Your task to perform on an android device: Open the Play Movies app and select the watchlist tab. Image 0: 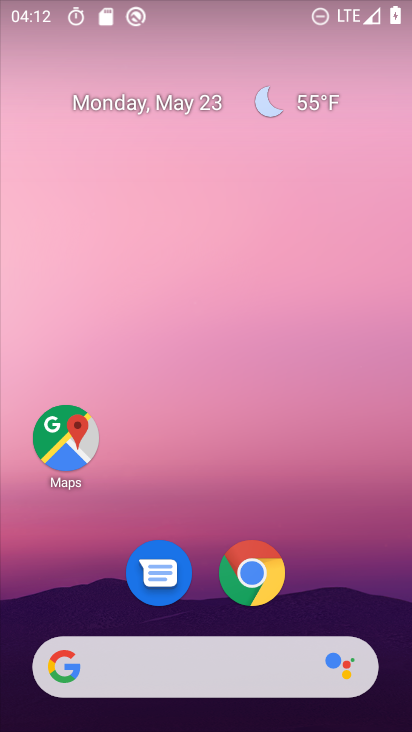
Step 0: drag from (320, 588) to (210, 45)
Your task to perform on an android device: Open the Play Movies app and select the watchlist tab. Image 1: 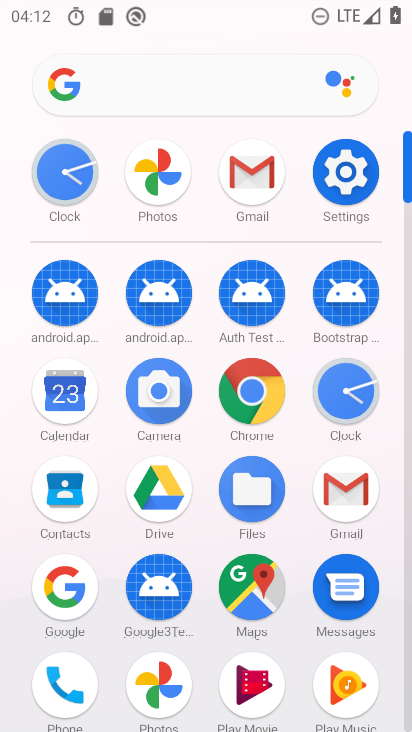
Step 1: click (254, 678)
Your task to perform on an android device: Open the Play Movies app and select the watchlist tab. Image 2: 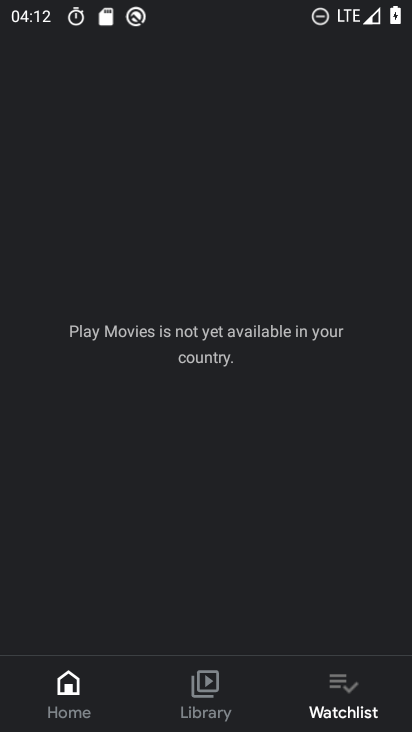
Step 2: click (350, 699)
Your task to perform on an android device: Open the Play Movies app and select the watchlist tab. Image 3: 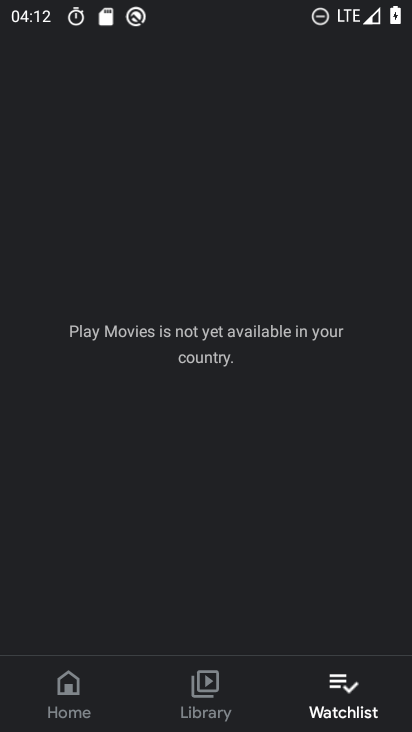
Step 3: task complete